Your task to perform on an android device: delete the emails in spam in the gmail app Image 0: 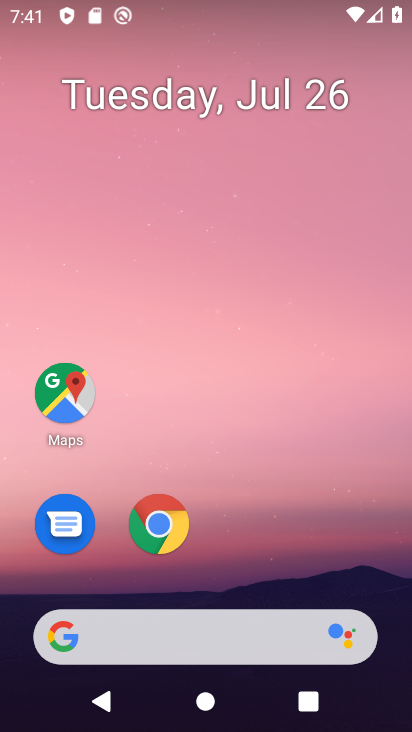
Step 0: drag from (315, 582) to (283, 51)
Your task to perform on an android device: delete the emails in spam in the gmail app Image 1: 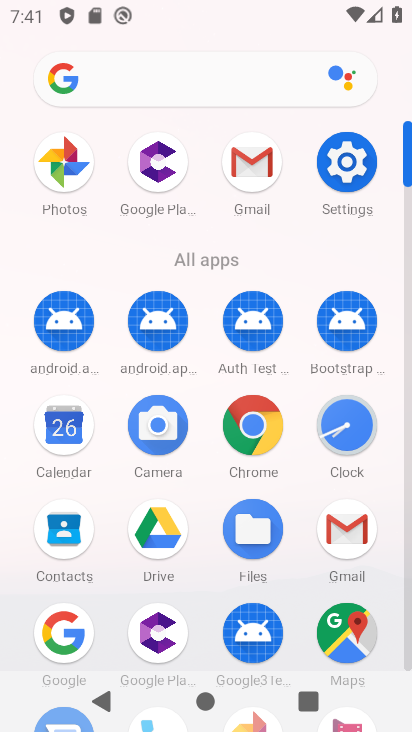
Step 1: click (261, 159)
Your task to perform on an android device: delete the emails in spam in the gmail app Image 2: 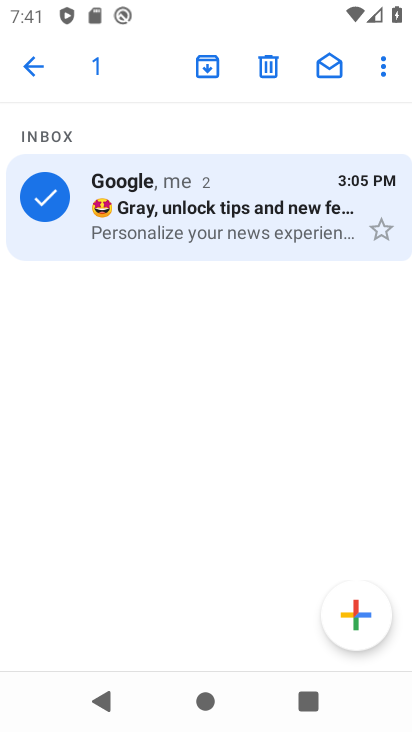
Step 2: click (32, 68)
Your task to perform on an android device: delete the emails in spam in the gmail app Image 3: 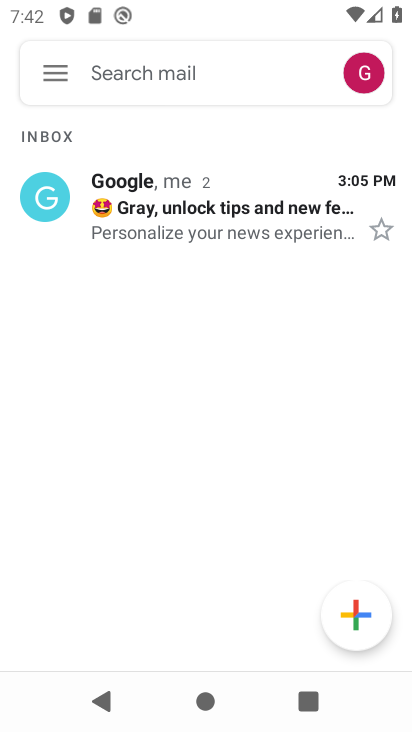
Step 3: click (56, 64)
Your task to perform on an android device: delete the emails in spam in the gmail app Image 4: 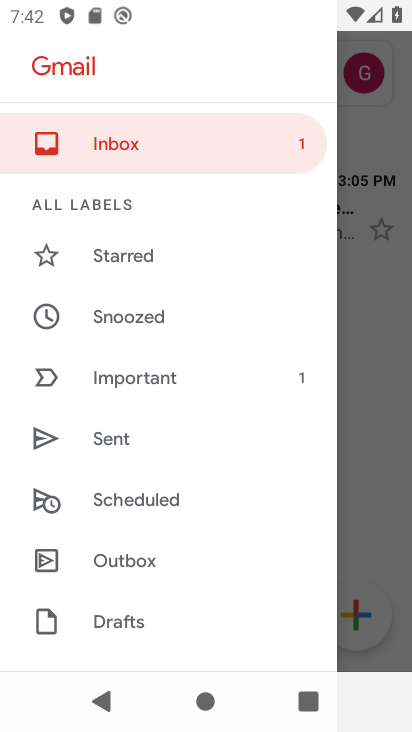
Step 4: drag from (171, 565) to (173, 108)
Your task to perform on an android device: delete the emails in spam in the gmail app Image 5: 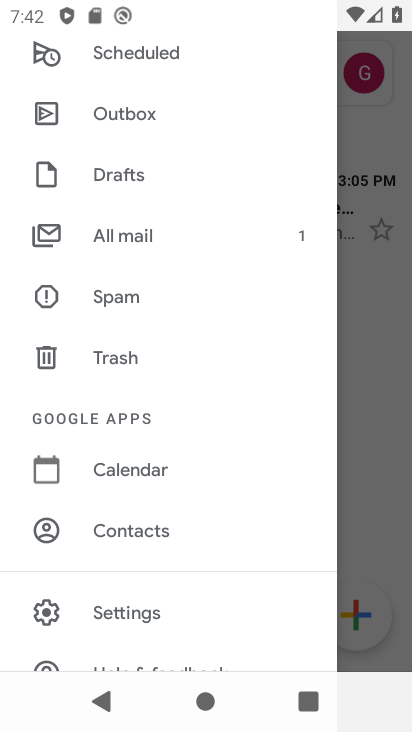
Step 5: click (131, 293)
Your task to perform on an android device: delete the emails in spam in the gmail app Image 6: 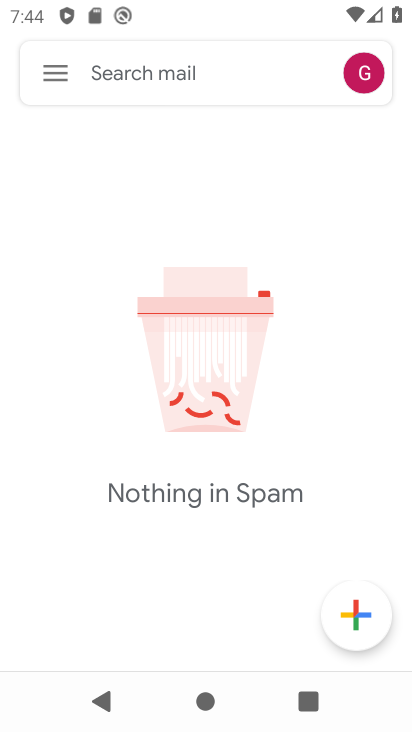
Step 6: task complete